Your task to perform on an android device: toggle location history Image 0: 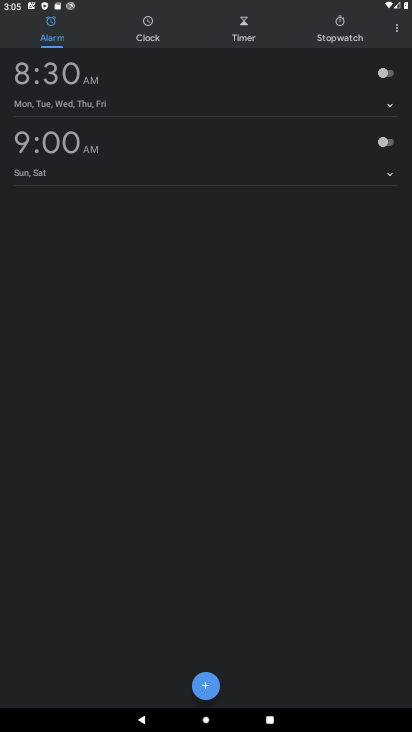
Step 0: press home button
Your task to perform on an android device: toggle location history Image 1: 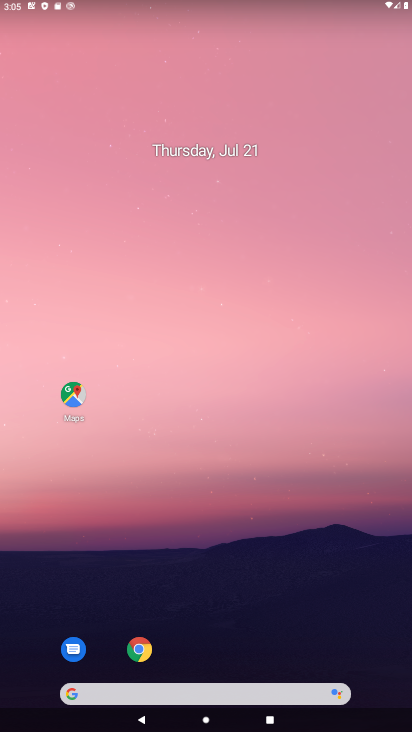
Step 1: drag from (279, 667) to (252, 179)
Your task to perform on an android device: toggle location history Image 2: 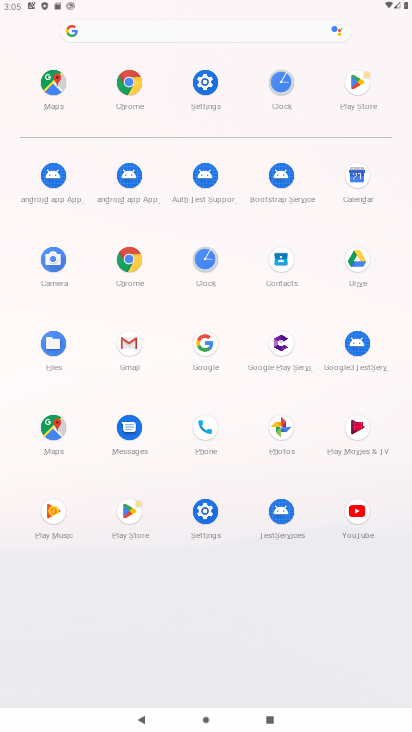
Step 2: click (214, 87)
Your task to perform on an android device: toggle location history Image 3: 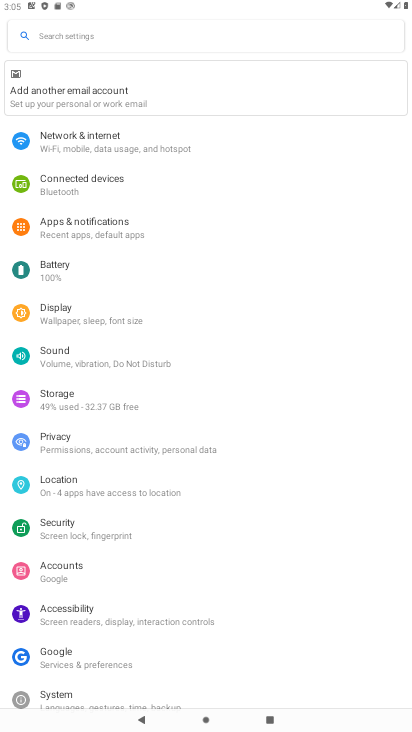
Step 3: click (128, 480)
Your task to perform on an android device: toggle location history Image 4: 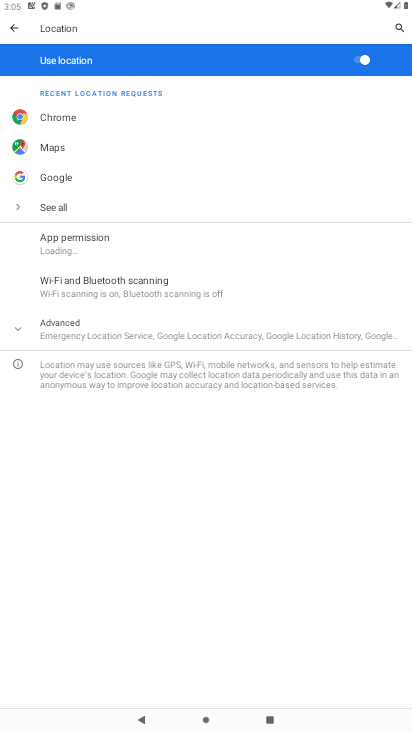
Step 4: click (135, 332)
Your task to perform on an android device: toggle location history Image 5: 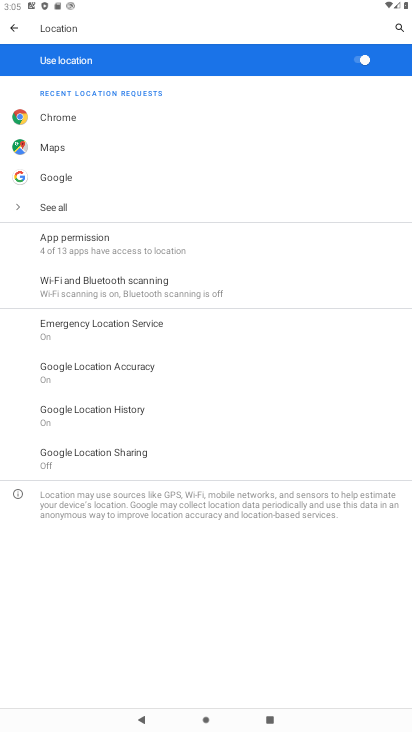
Step 5: click (156, 411)
Your task to perform on an android device: toggle location history Image 6: 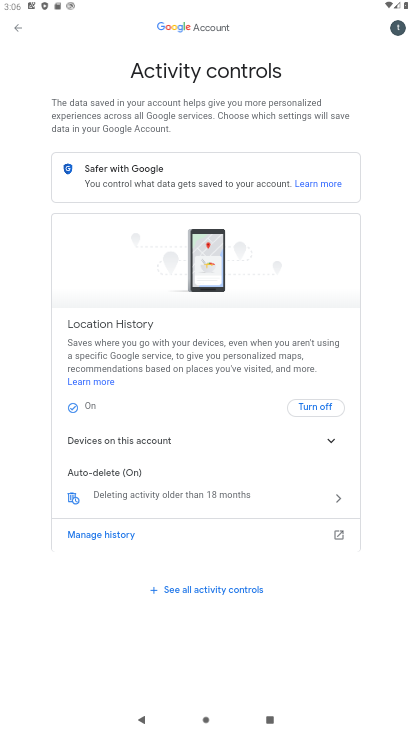
Step 6: click (173, 489)
Your task to perform on an android device: toggle location history Image 7: 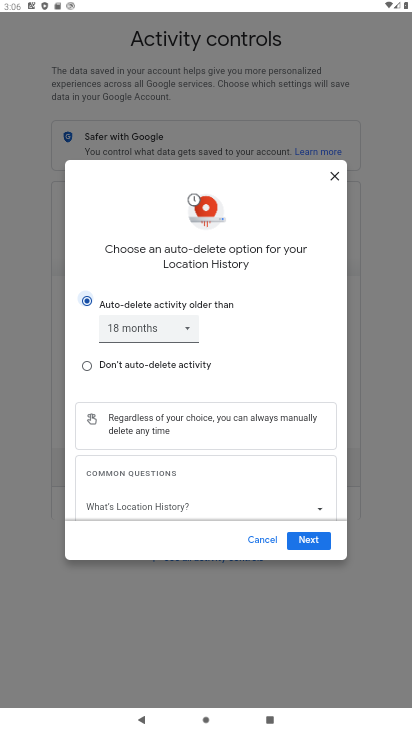
Step 7: click (180, 334)
Your task to perform on an android device: toggle location history Image 8: 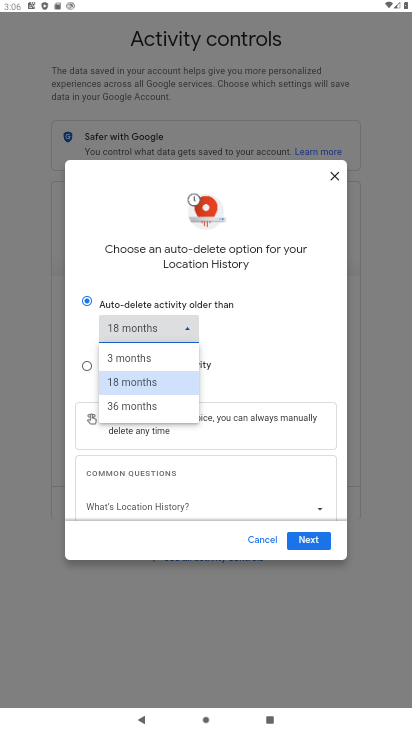
Step 8: click (156, 349)
Your task to perform on an android device: toggle location history Image 9: 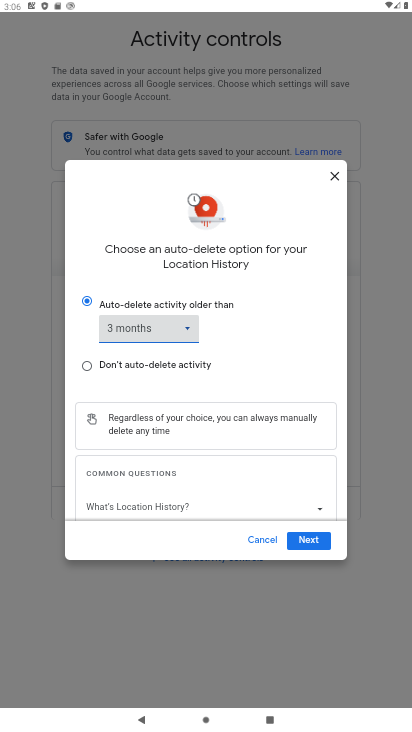
Step 9: click (309, 536)
Your task to perform on an android device: toggle location history Image 10: 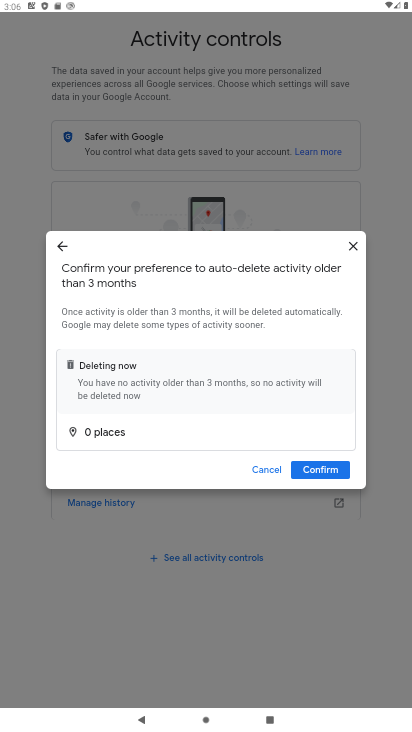
Step 10: click (320, 468)
Your task to perform on an android device: toggle location history Image 11: 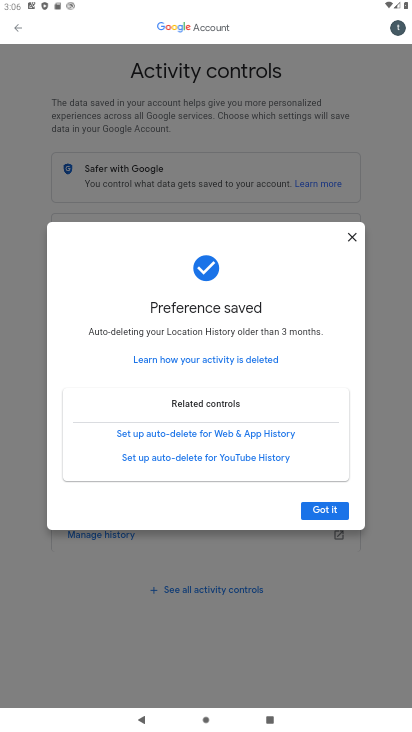
Step 11: click (341, 508)
Your task to perform on an android device: toggle location history Image 12: 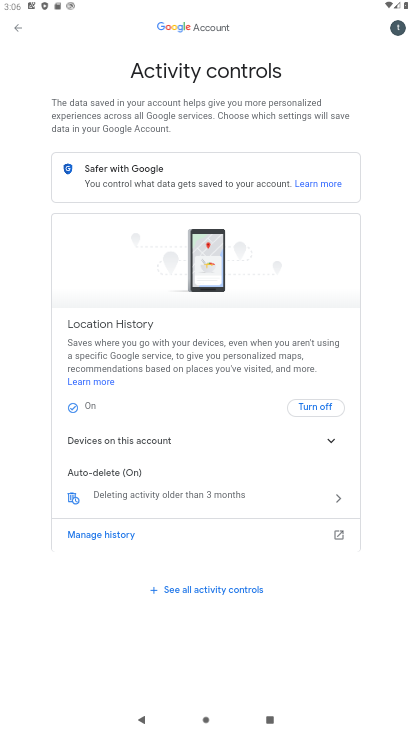
Step 12: task complete